Your task to perform on an android device: Open notification settings Image 0: 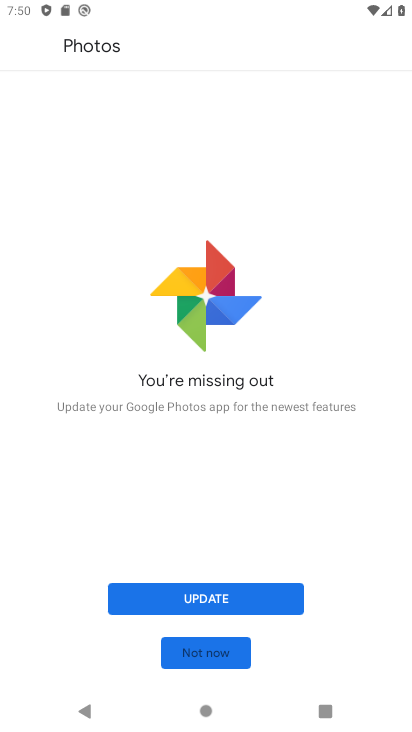
Step 0: press home button
Your task to perform on an android device: Open notification settings Image 1: 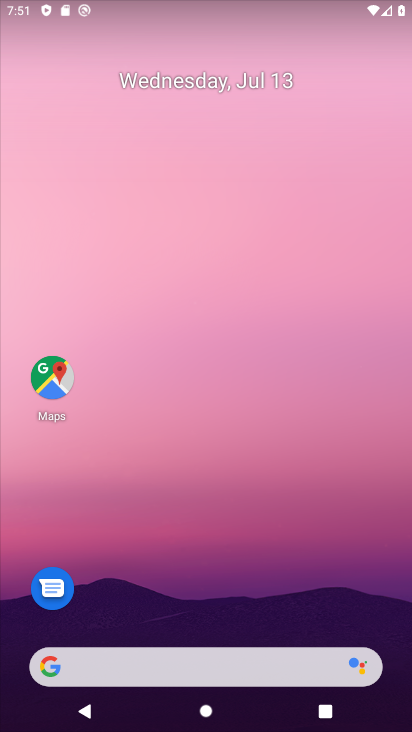
Step 1: drag from (137, 714) to (199, 46)
Your task to perform on an android device: Open notification settings Image 2: 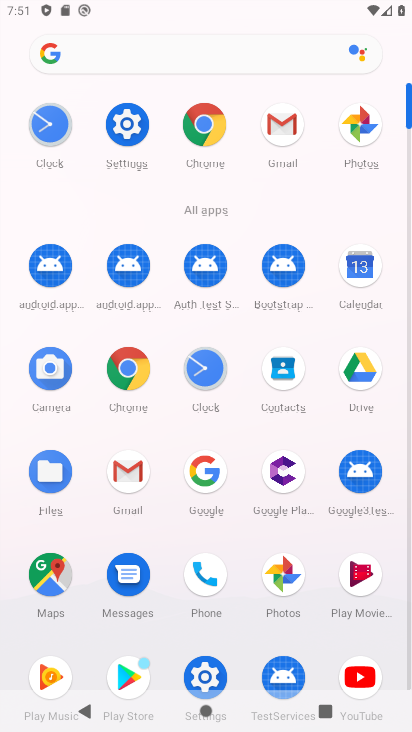
Step 2: click (110, 117)
Your task to perform on an android device: Open notification settings Image 3: 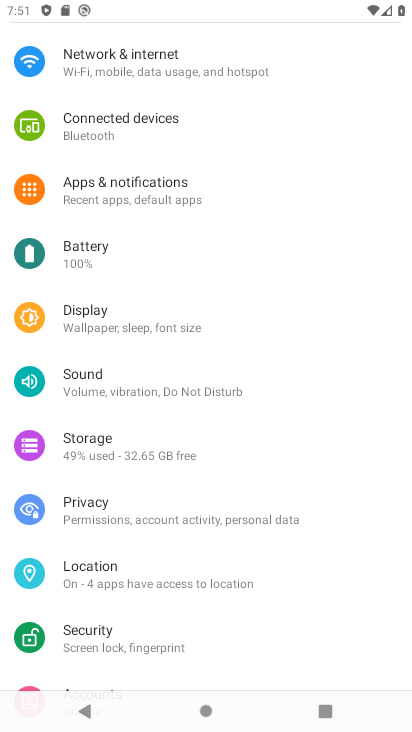
Step 3: click (237, 190)
Your task to perform on an android device: Open notification settings Image 4: 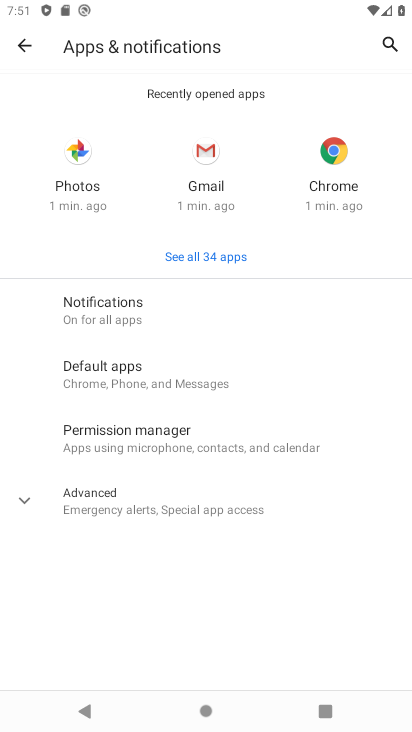
Step 4: task complete